Your task to perform on an android device: toggle location history Image 0: 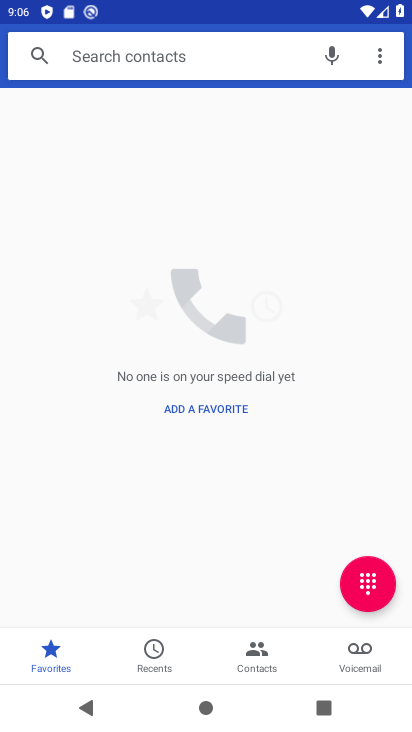
Step 0: press home button
Your task to perform on an android device: toggle location history Image 1: 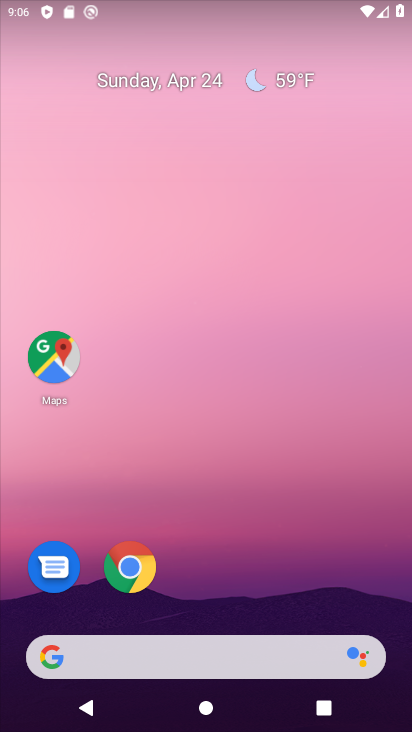
Step 1: drag from (356, 334) to (324, 184)
Your task to perform on an android device: toggle location history Image 2: 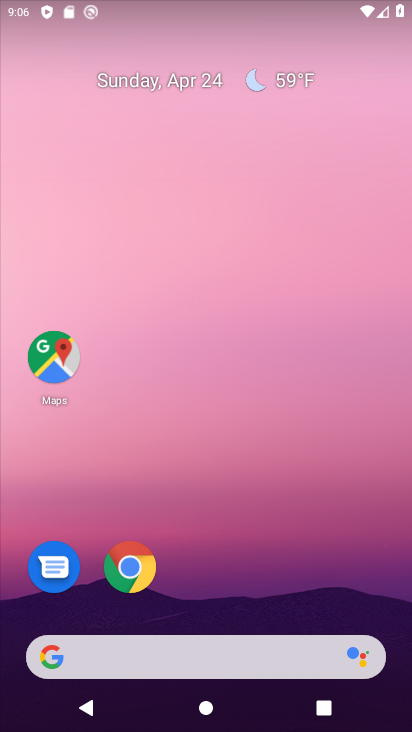
Step 2: click (369, 228)
Your task to perform on an android device: toggle location history Image 3: 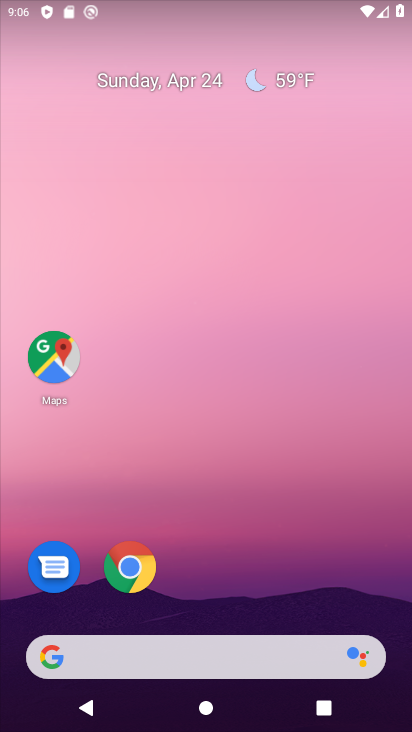
Step 3: drag from (368, 394) to (352, 142)
Your task to perform on an android device: toggle location history Image 4: 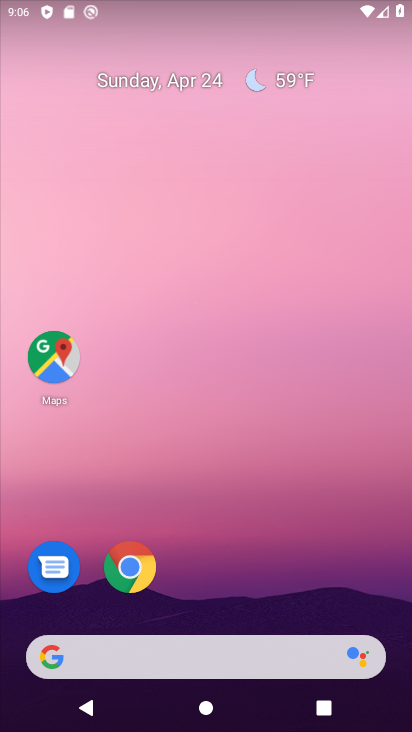
Step 4: drag from (388, 387) to (393, 70)
Your task to perform on an android device: toggle location history Image 5: 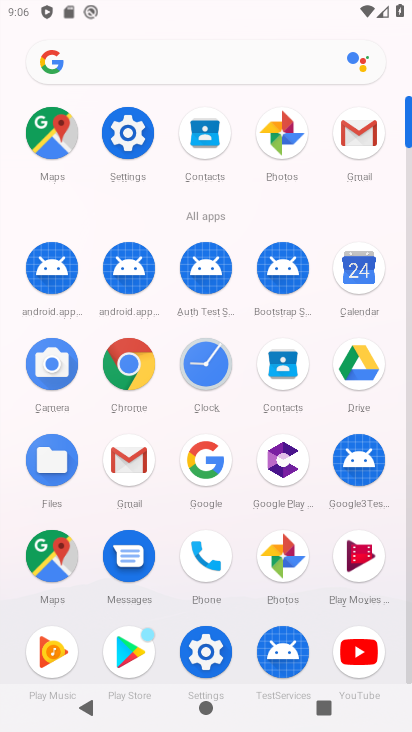
Step 5: click (123, 141)
Your task to perform on an android device: toggle location history Image 6: 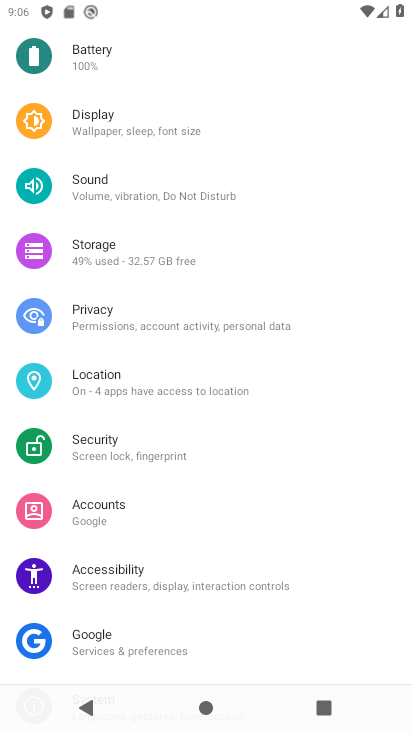
Step 6: click (99, 380)
Your task to perform on an android device: toggle location history Image 7: 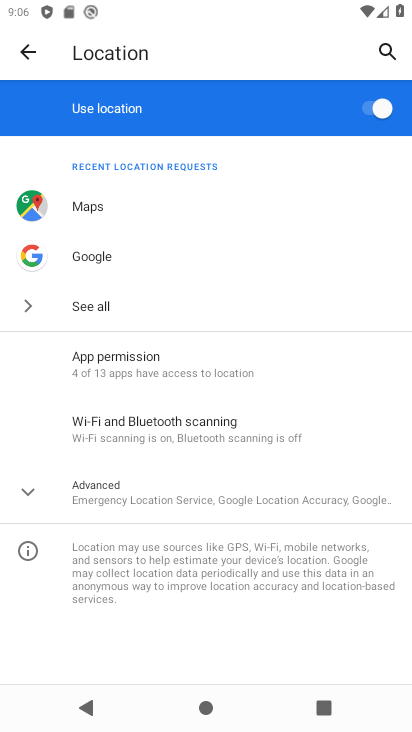
Step 7: drag from (193, 580) to (178, 219)
Your task to perform on an android device: toggle location history Image 8: 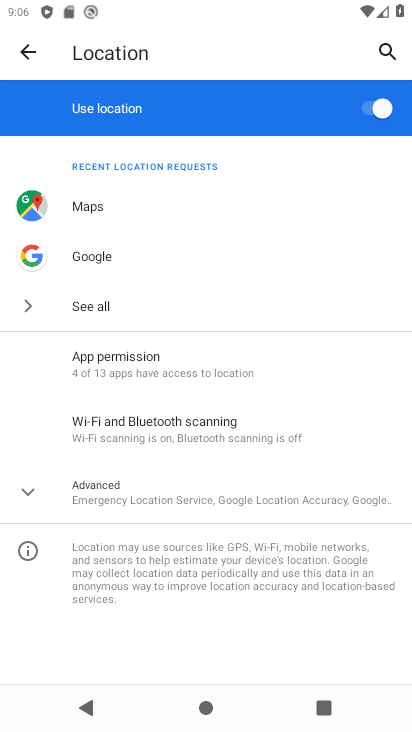
Step 8: click (39, 497)
Your task to perform on an android device: toggle location history Image 9: 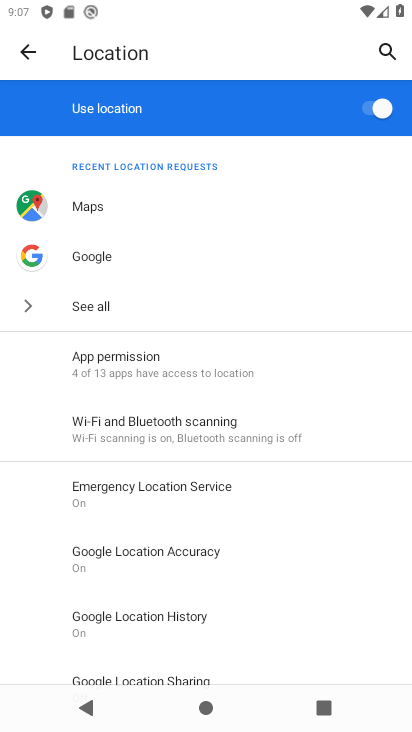
Step 9: drag from (334, 351) to (336, 312)
Your task to perform on an android device: toggle location history Image 10: 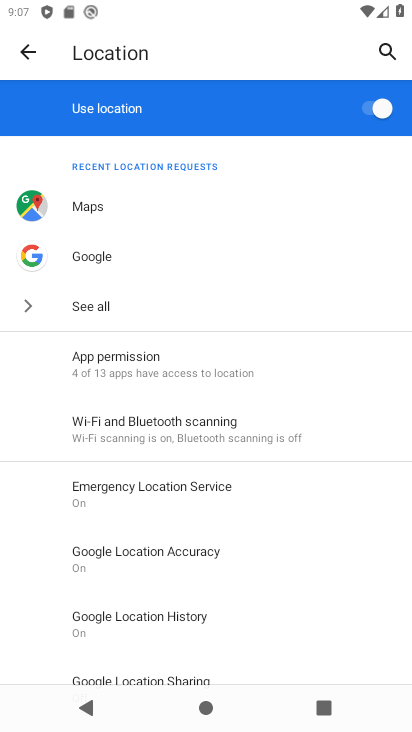
Step 10: drag from (330, 627) to (330, 354)
Your task to perform on an android device: toggle location history Image 11: 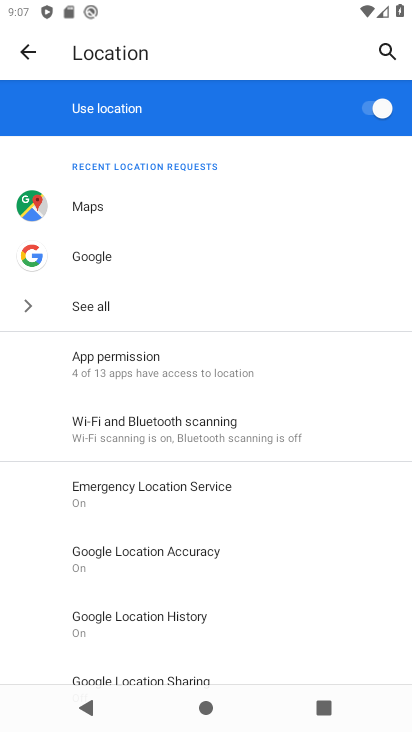
Step 11: drag from (326, 446) to (324, 312)
Your task to perform on an android device: toggle location history Image 12: 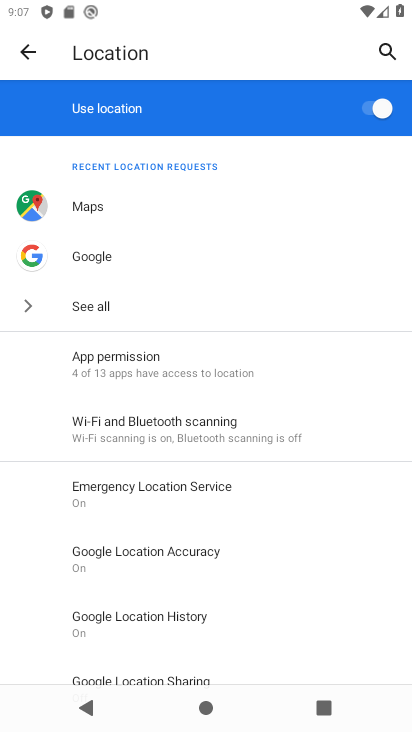
Step 12: click (108, 615)
Your task to perform on an android device: toggle location history Image 13: 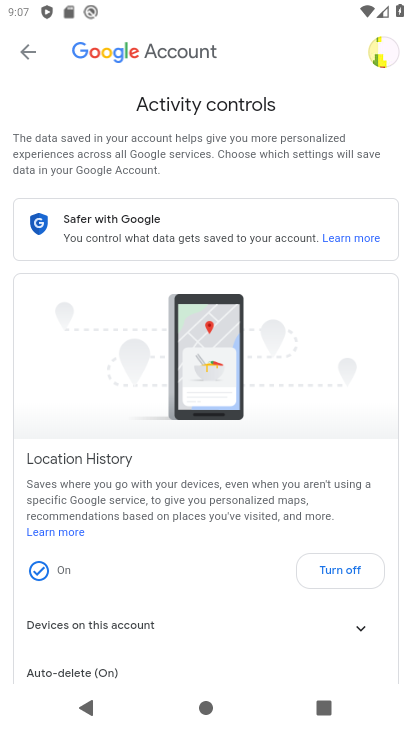
Step 13: click (337, 564)
Your task to perform on an android device: toggle location history Image 14: 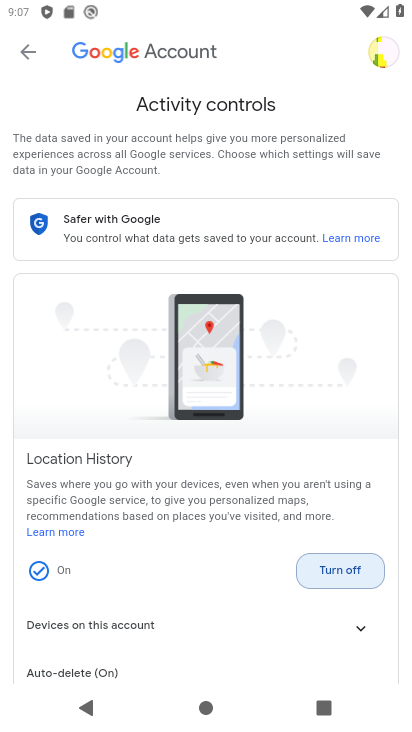
Step 14: drag from (218, 638) to (207, 320)
Your task to perform on an android device: toggle location history Image 15: 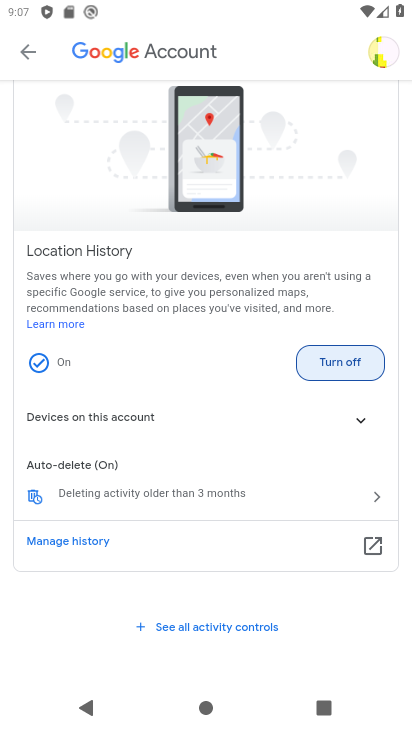
Step 15: drag from (238, 630) to (234, 436)
Your task to perform on an android device: toggle location history Image 16: 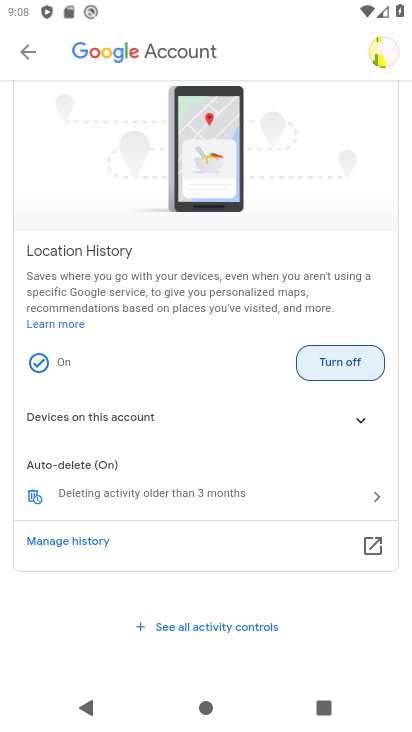
Step 16: drag from (295, 579) to (250, 281)
Your task to perform on an android device: toggle location history Image 17: 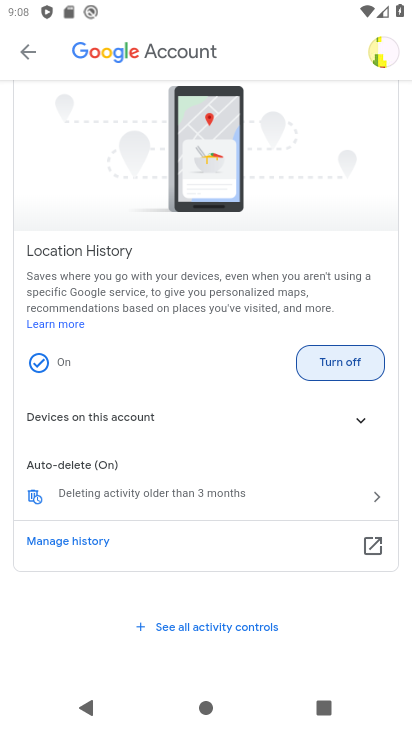
Step 17: click (335, 352)
Your task to perform on an android device: toggle location history Image 18: 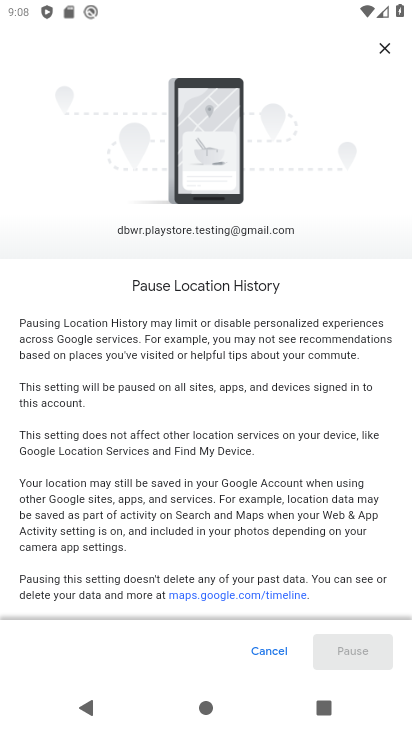
Step 18: drag from (276, 494) to (269, 192)
Your task to perform on an android device: toggle location history Image 19: 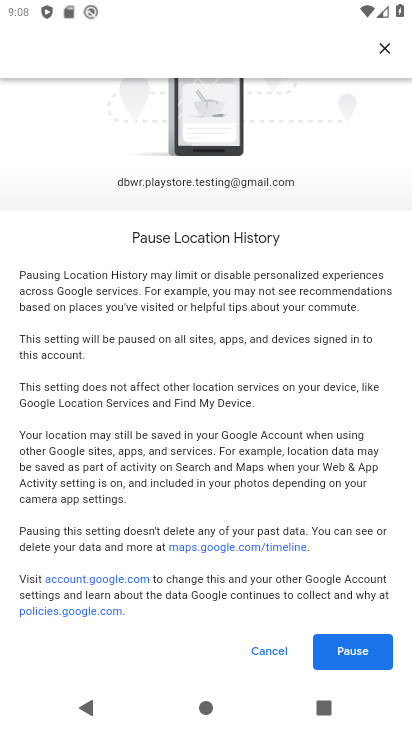
Step 19: drag from (239, 491) to (239, 169)
Your task to perform on an android device: toggle location history Image 20: 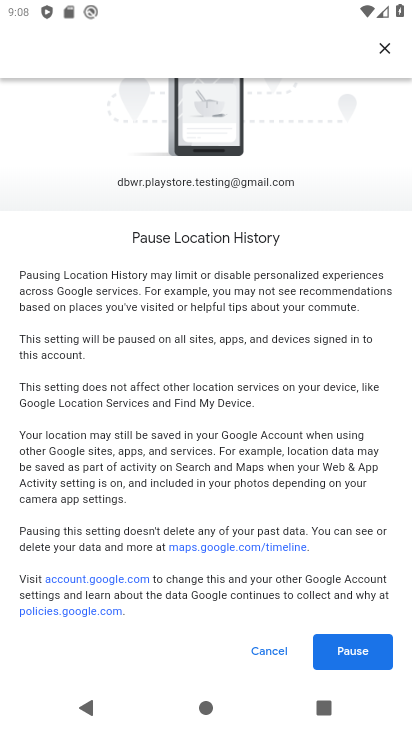
Step 20: click (346, 643)
Your task to perform on an android device: toggle location history Image 21: 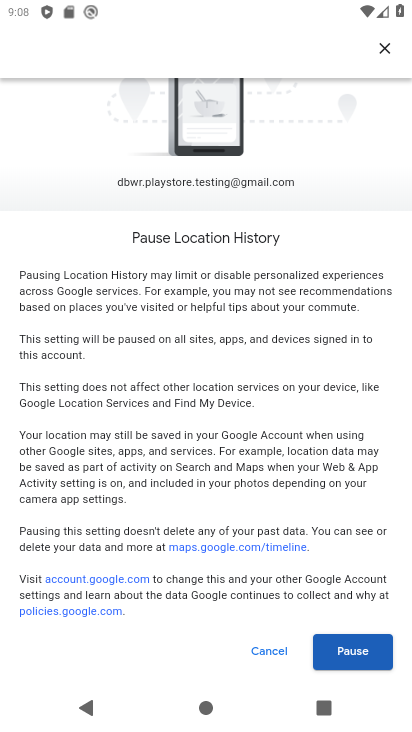
Step 21: click (365, 645)
Your task to perform on an android device: toggle location history Image 22: 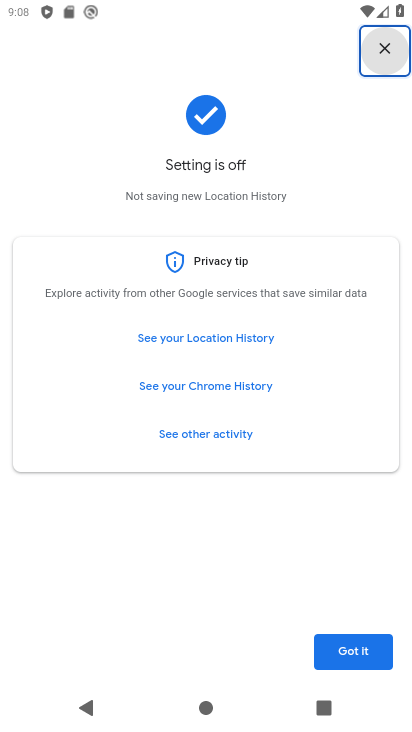
Step 22: click (347, 657)
Your task to perform on an android device: toggle location history Image 23: 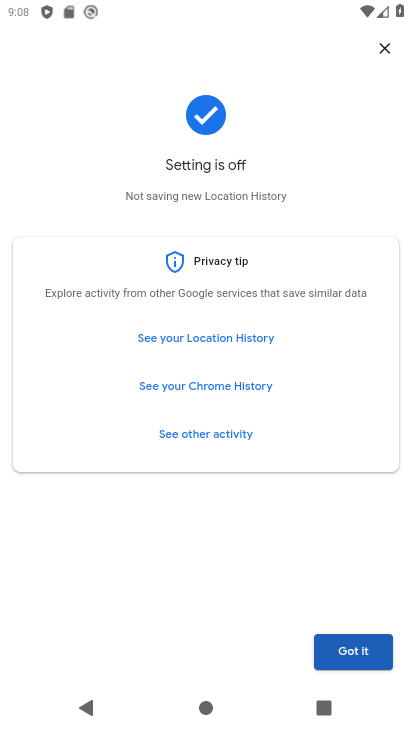
Step 23: task complete